Your task to perform on an android device: open the mobile data screen to see how much data has been used Image 0: 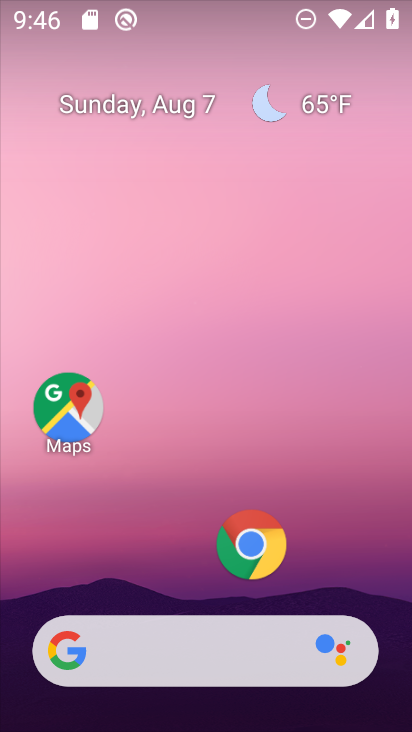
Step 0: drag from (228, 598) to (349, 6)
Your task to perform on an android device: open the mobile data screen to see how much data has been used Image 1: 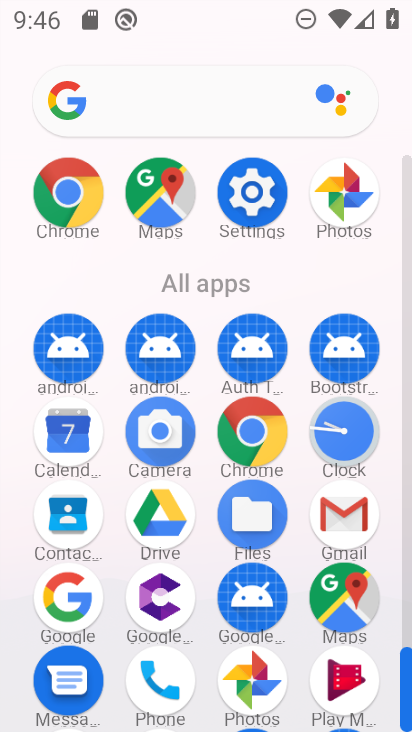
Step 1: click (234, 170)
Your task to perform on an android device: open the mobile data screen to see how much data has been used Image 2: 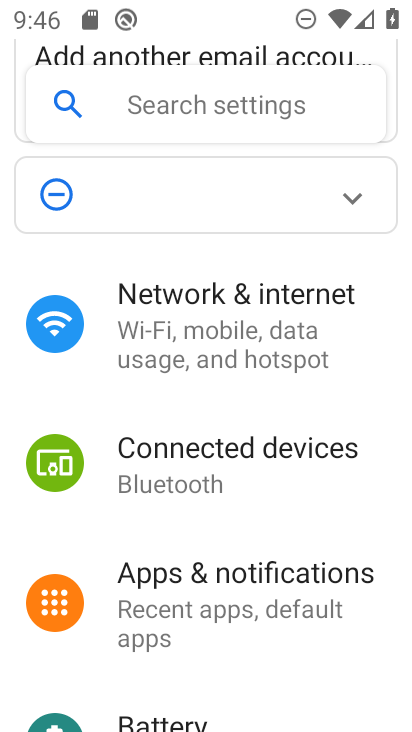
Step 2: click (218, 310)
Your task to perform on an android device: open the mobile data screen to see how much data has been used Image 3: 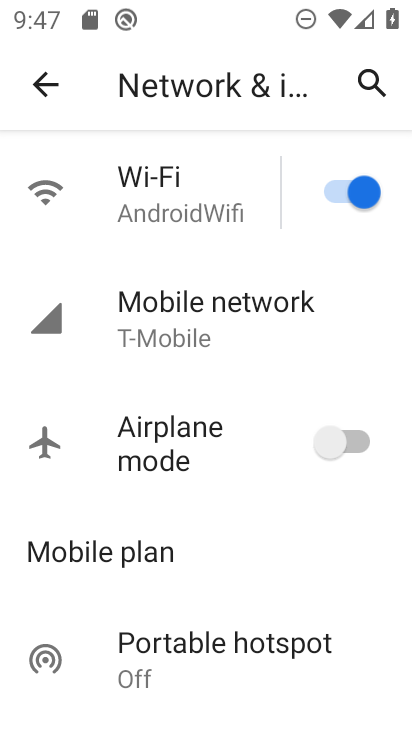
Step 3: click (246, 296)
Your task to perform on an android device: open the mobile data screen to see how much data has been used Image 4: 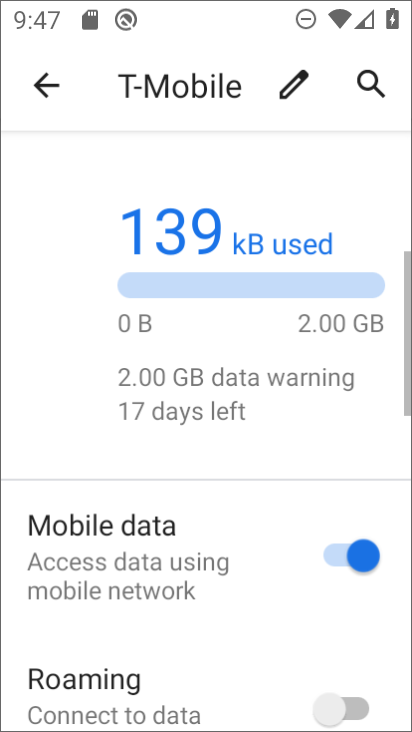
Step 4: task complete